Your task to perform on an android device: Search for pizza restaurants on Maps Image 0: 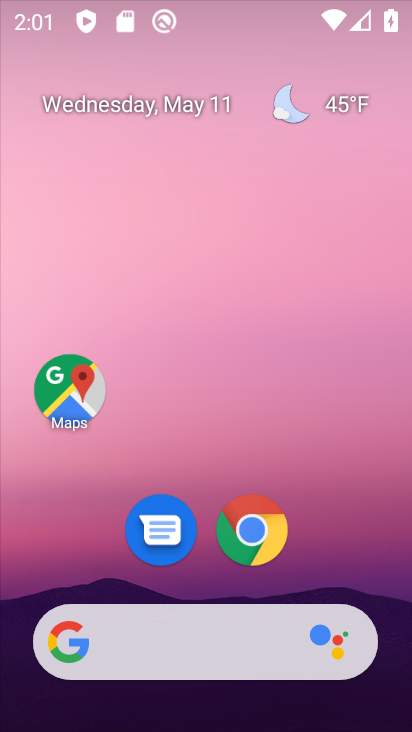
Step 0: drag from (310, 492) to (246, 123)
Your task to perform on an android device: Search for pizza restaurants on Maps Image 1: 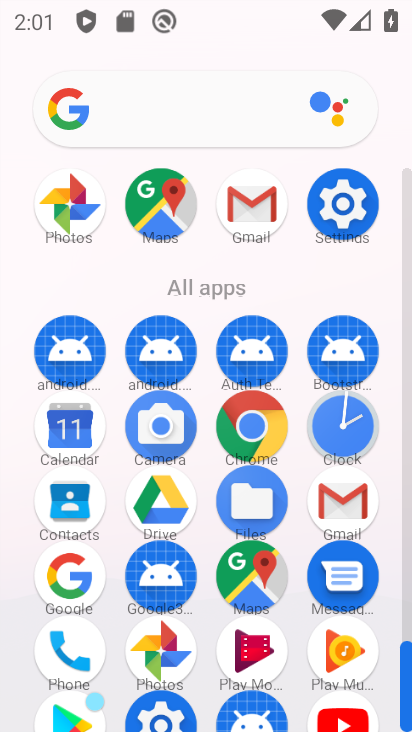
Step 1: click (153, 203)
Your task to perform on an android device: Search for pizza restaurants on Maps Image 2: 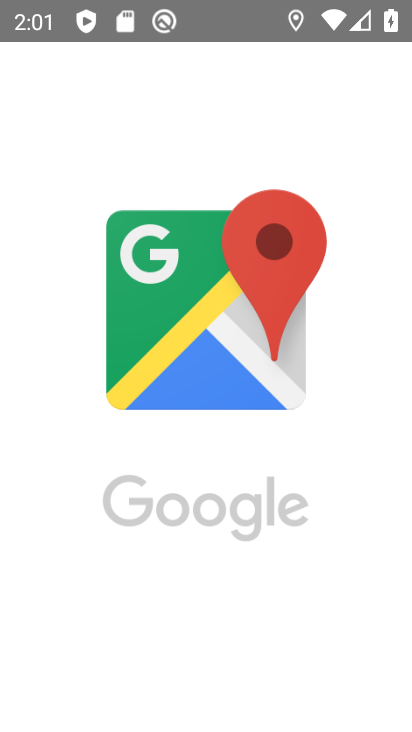
Step 2: click (200, 322)
Your task to perform on an android device: Search for pizza restaurants on Maps Image 3: 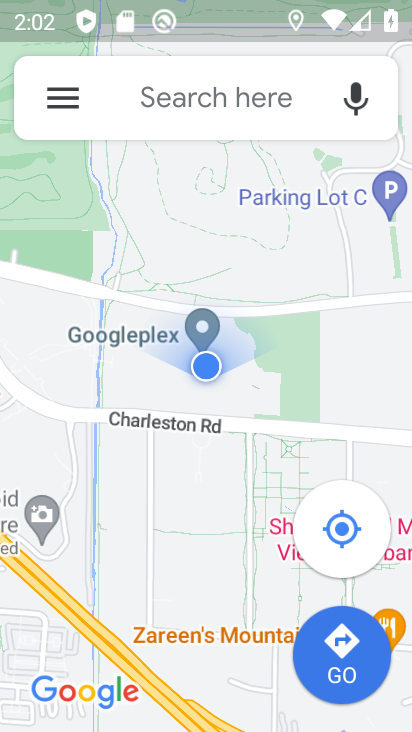
Step 3: click (121, 90)
Your task to perform on an android device: Search for pizza restaurants on Maps Image 4: 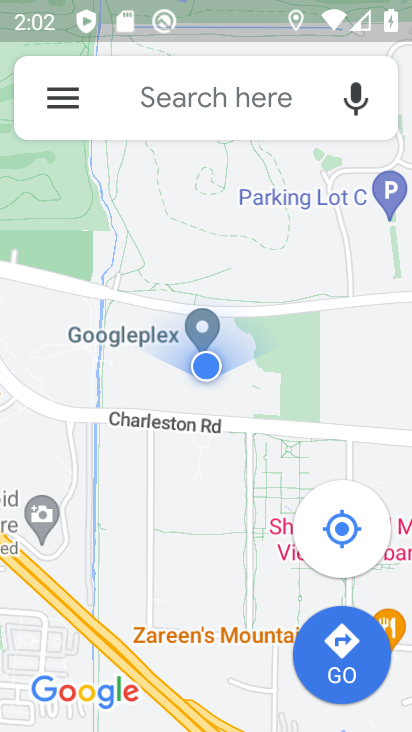
Step 4: drag from (123, 92) to (162, 95)
Your task to perform on an android device: Search for pizza restaurants on Maps Image 5: 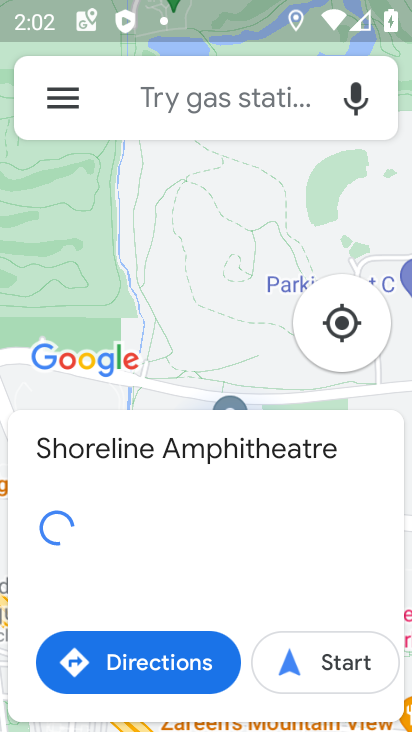
Step 5: click (161, 95)
Your task to perform on an android device: Search for pizza restaurants on Maps Image 6: 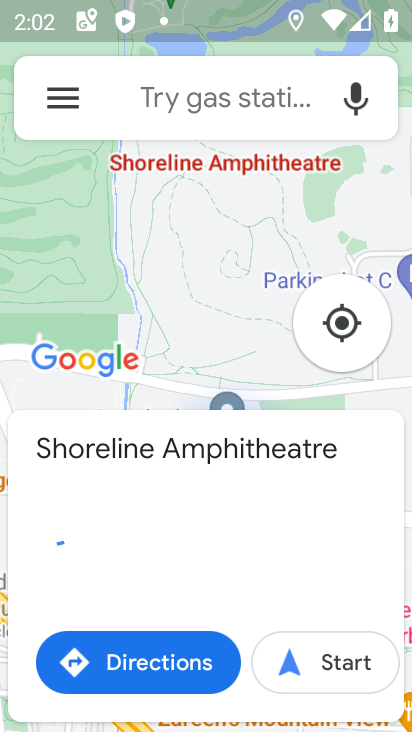
Step 6: click (148, 94)
Your task to perform on an android device: Search for pizza restaurants on Maps Image 7: 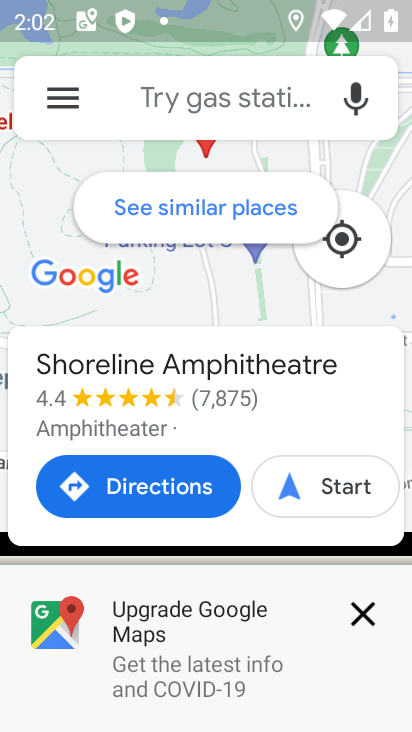
Step 7: click (160, 94)
Your task to perform on an android device: Search for pizza restaurants on Maps Image 8: 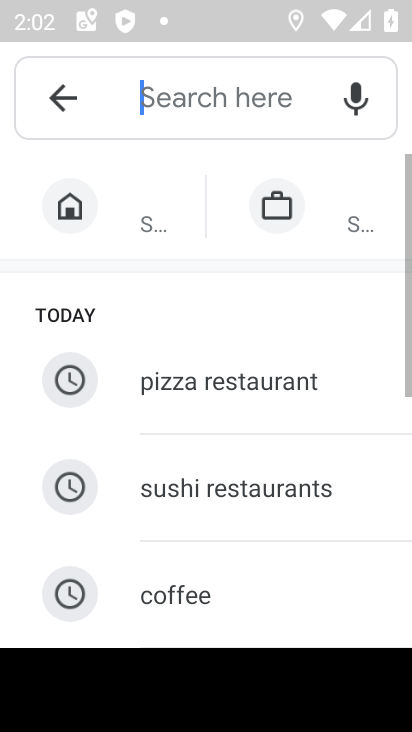
Step 8: click (149, 91)
Your task to perform on an android device: Search for pizza restaurants on Maps Image 9: 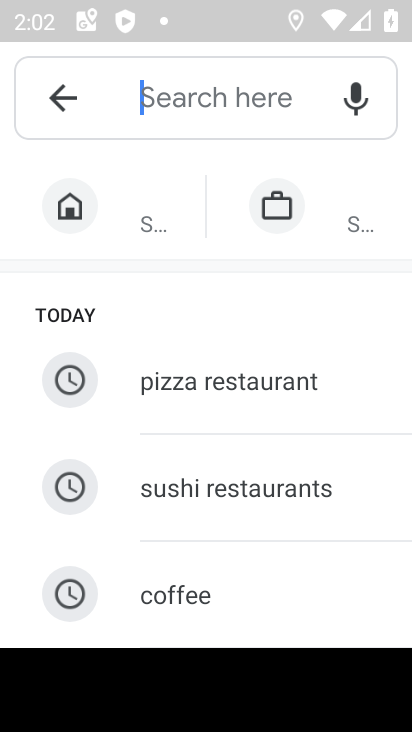
Step 9: type "pizza"
Your task to perform on an android device: Search for pizza restaurants on Maps Image 10: 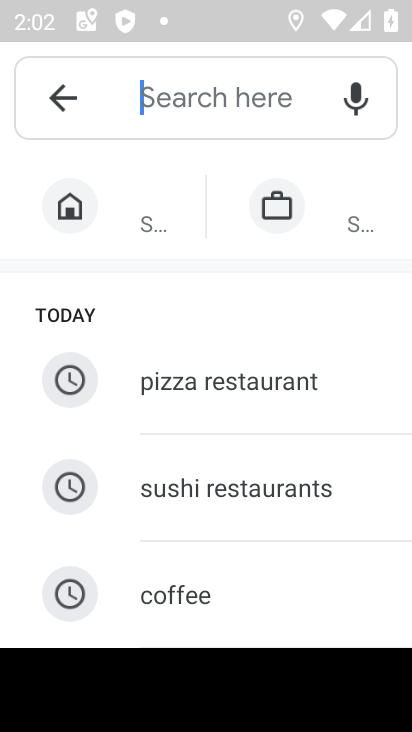
Step 10: click (224, 372)
Your task to perform on an android device: Search for pizza restaurants on Maps Image 11: 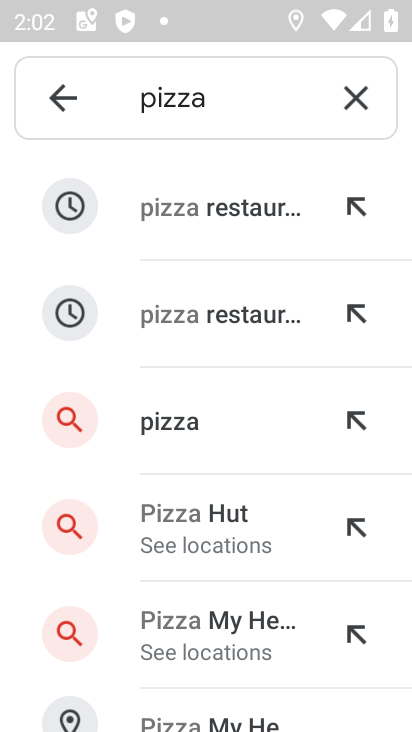
Step 11: task complete